Your task to perform on an android device: toggle data saver in the chrome app Image 0: 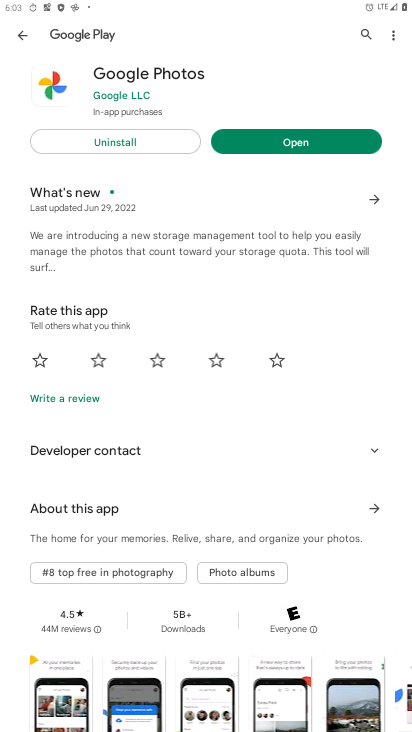
Step 0: press home button
Your task to perform on an android device: toggle data saver in the chrome app Image 1: 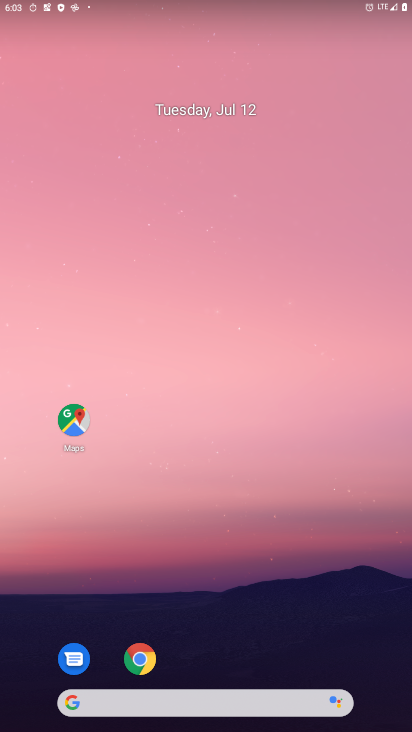
Step 1: drag from (231, 245) to (231, 74)
Your task to perform on an android device: toggle data saver in the chrome app Image 2: 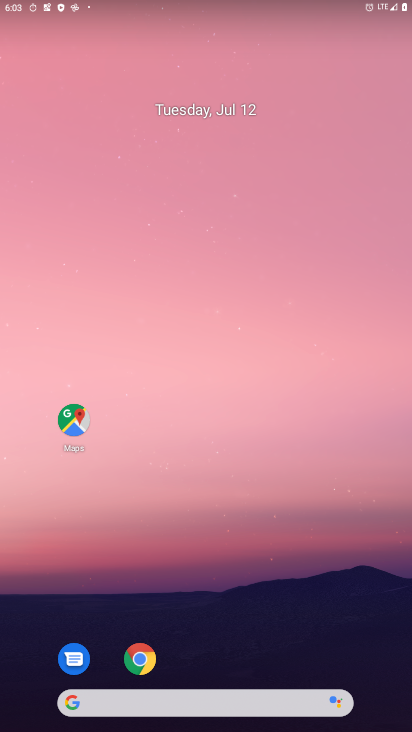
Step 2: click (145, 673)
Your task to perform on an android device: toggle data saver in the chrome app Image 3: 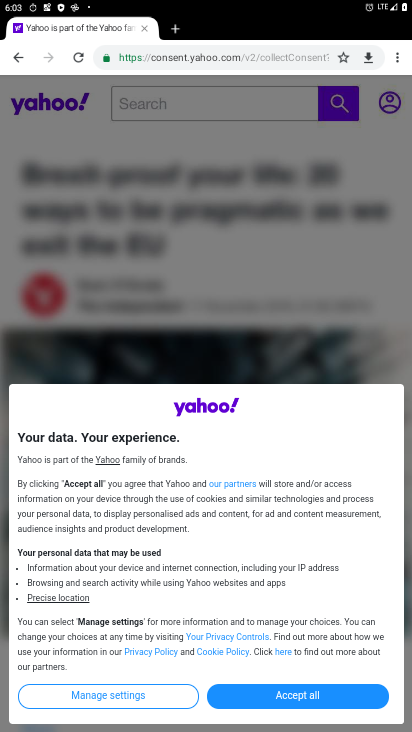
Step 3: click (399, 57)
Your task to perform on an android device: toggle data saver in the chrome app Image 4: 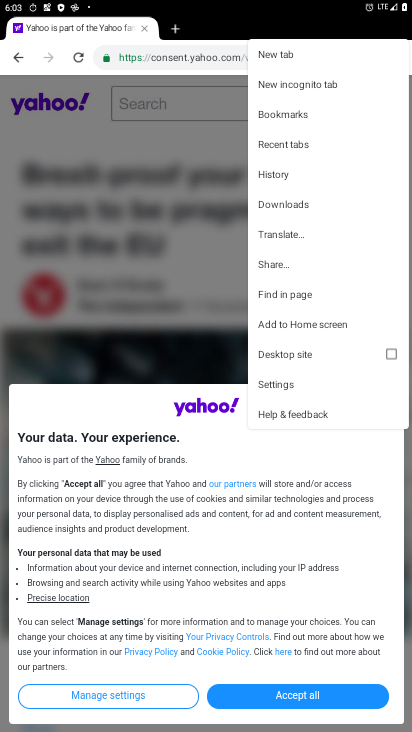
Step 4: click (271, 381)
Your task to perform on an android device: toggle data saver in the chrome app Image 5: 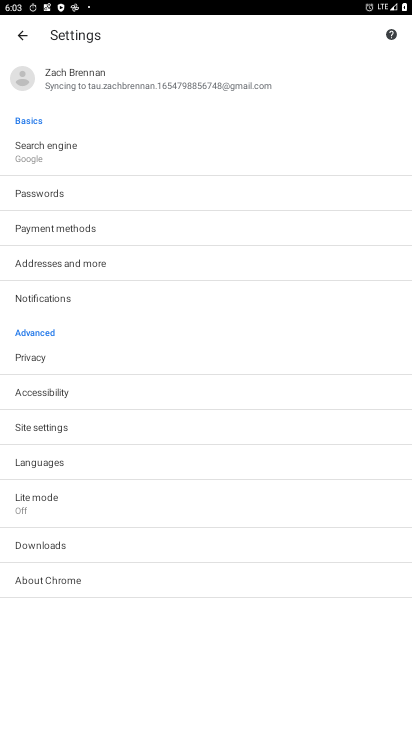
Step 5: click (20, 510)
Your task to perform on an android device: toggle data saver in the chrome app Image 6: 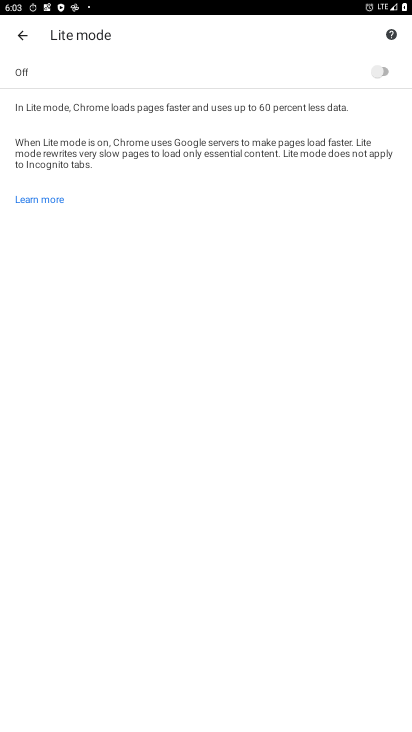
Step 6: click (388, 75)
Your task to perform on an android device: toggle data saver in the chrome app Image 7: 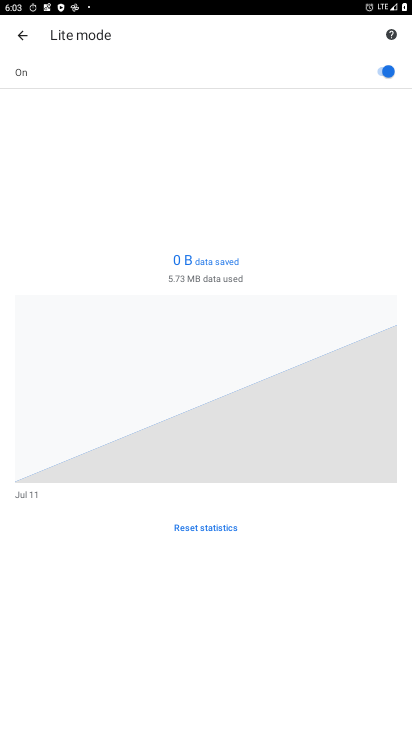
Step 7: task complete